Your task to perform on an android device: Open Google Chrome and click the shortcut for Amazon.com Image 0: 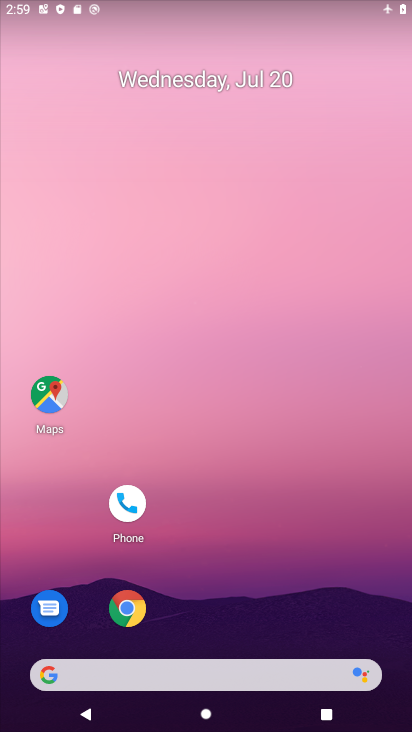
Step 0: drag from (308, 560) to (293, 62)
Your task to perform on an android device: Open Google Chrome and click the shortcut for Amazon.com Image 1: 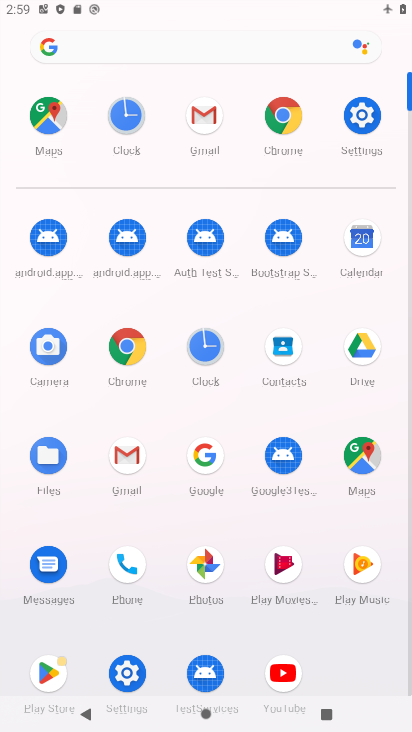
Step 1: click (291, 113)
Your task to perform on an android device: Open Google Chrome and click the shortcut for Amazon.com Image 2: 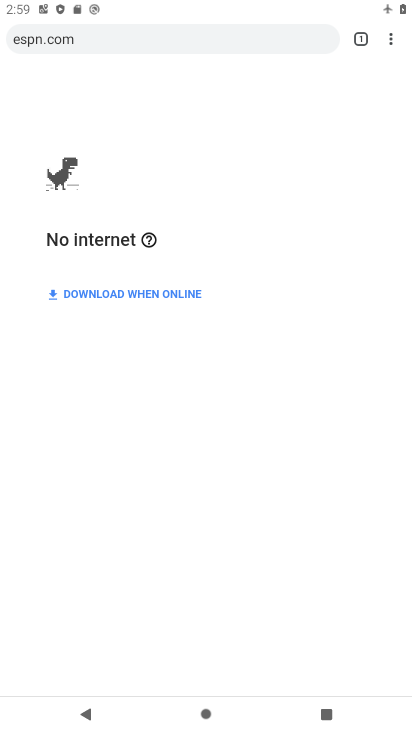
Step 2: click (367, 35)
Your task to perform on an android device: Open Google Chrome and click the shortcut for Amazon.com Image 3: 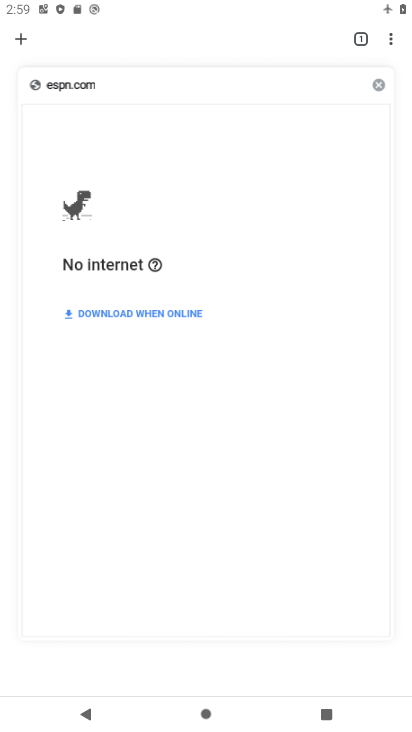
Step 3: click (21, 36)
Your task to perform on an android device: Open Google Chrome and click the shortcut for Amazon.com Image 4: 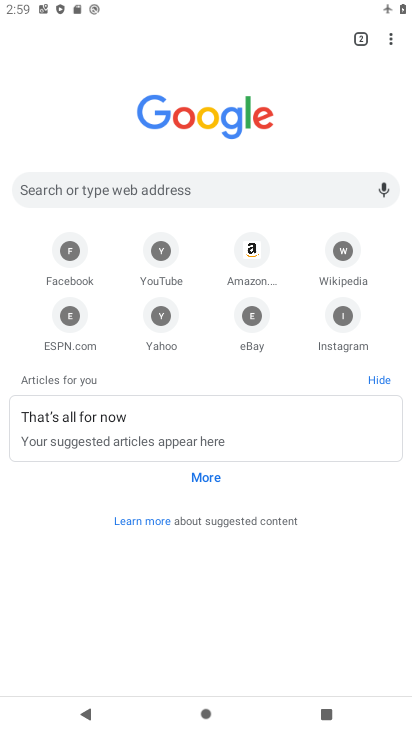
Step 4: click (253, 248)
Your task to perform on an android device: Open Google Chrome and click the shortcut for Amazon.com Image 5: 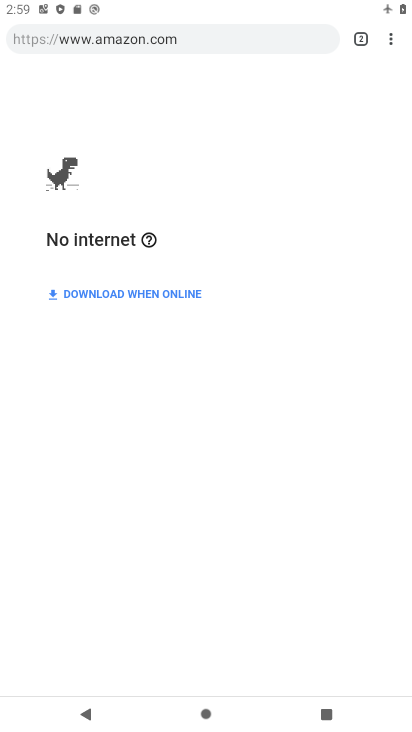
Step 5: task complete